Your task to perform on an android device: Search for razer blackwidow on newegg.com, select the first entry, and add it to the cart. Image 0: 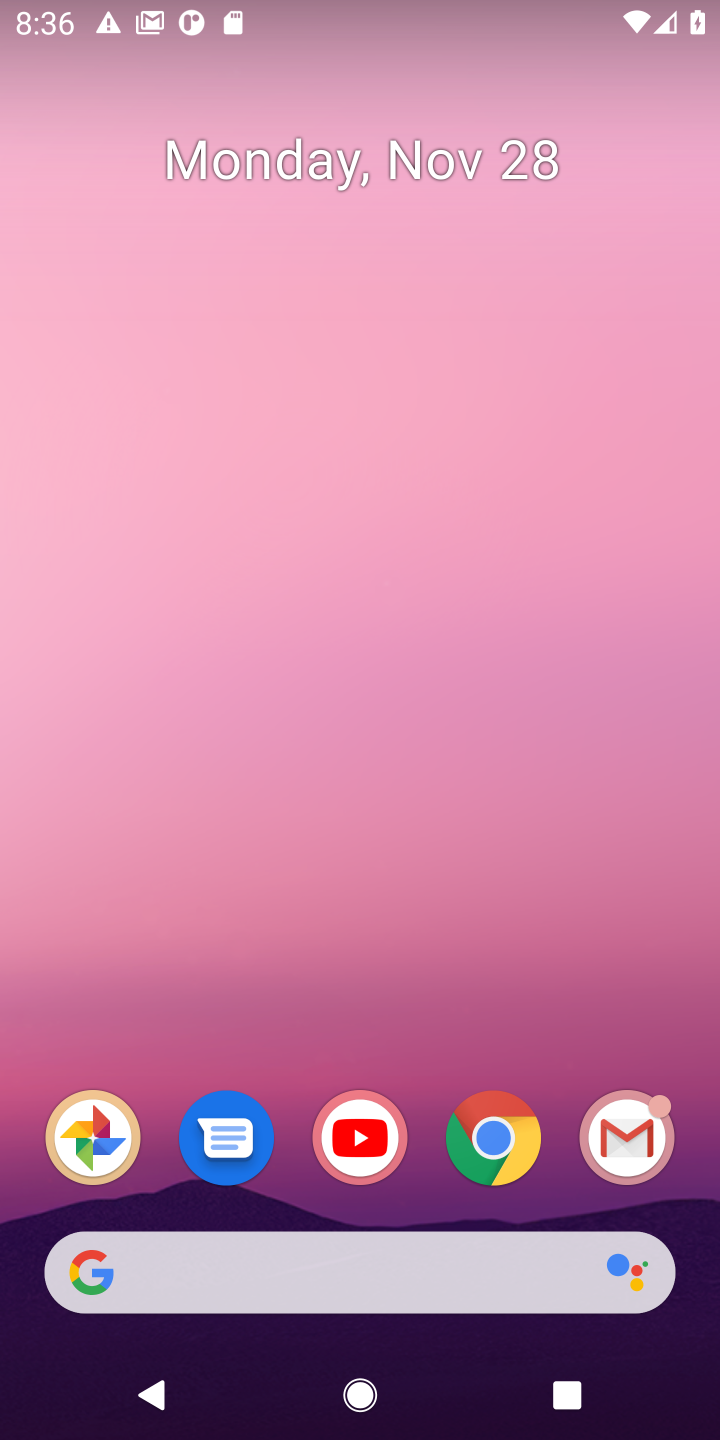
Step 0: click (492, 1158)
Your task to perform on an android device: Search for razer blackwidow on newegg.com, select the first entry, and add it to the cart. Image 1: 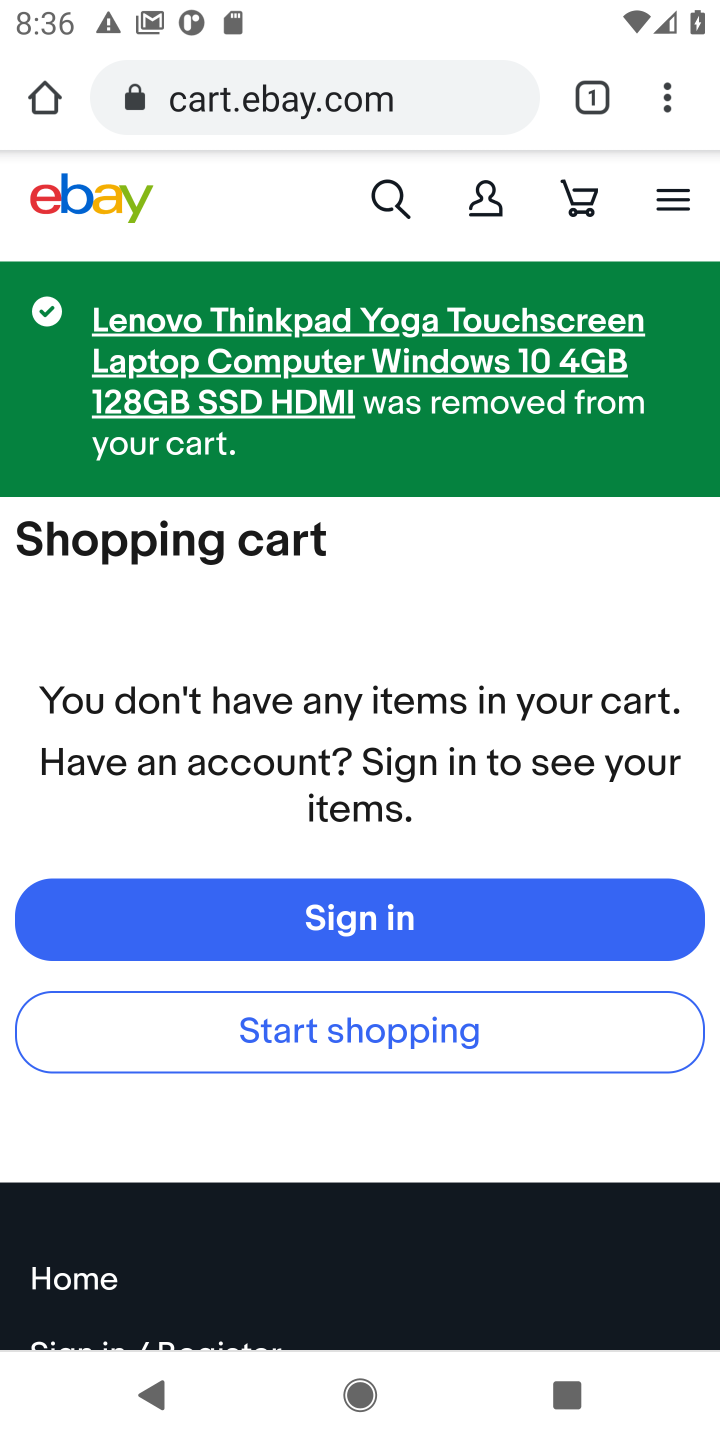
Step 1: click (258, 110)
Your task to perform on an android device: Search for razer blackwidow on newegg.com, select the first entry, and add it to the cart. Image 2: 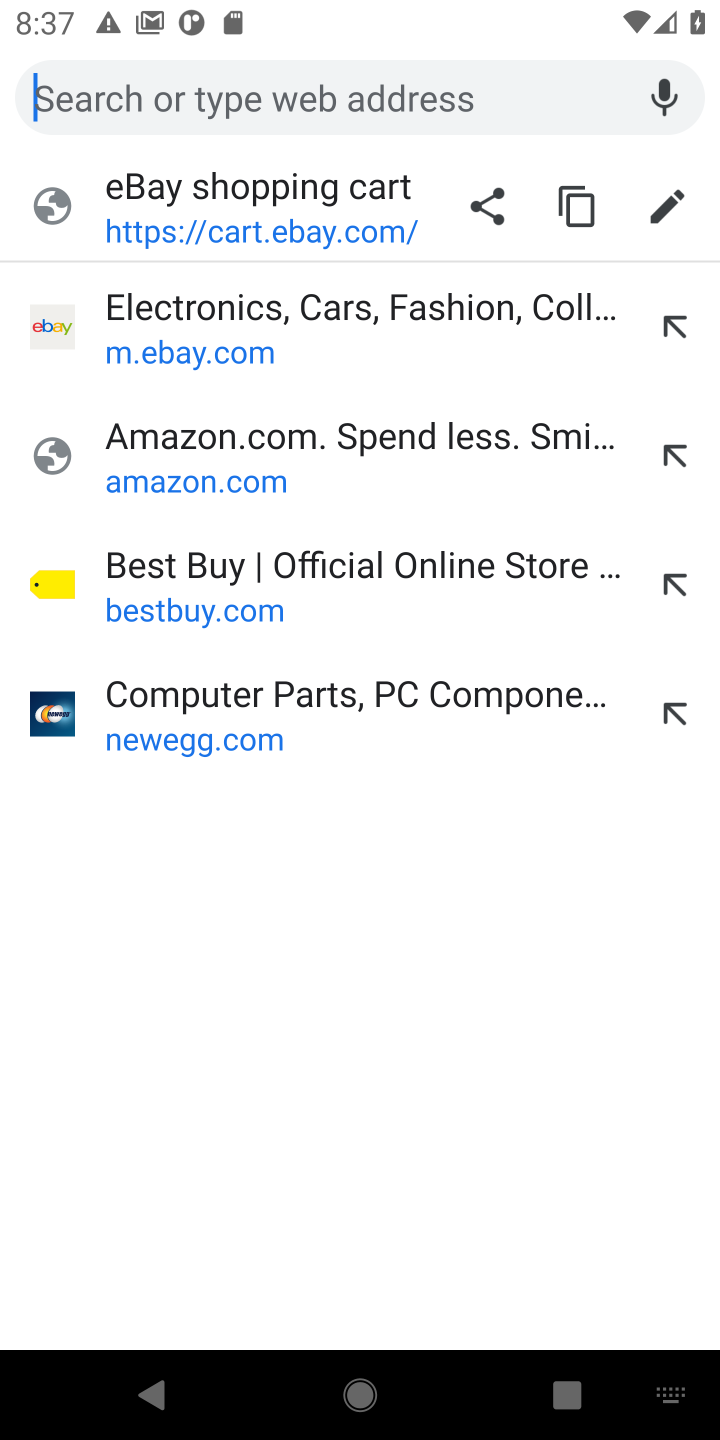
Step 2: click (131, 737)
Your task to perform on an android device: Search for razer blackwidow on newegg.com, select the first entry, and add it to the cart. Image 3: 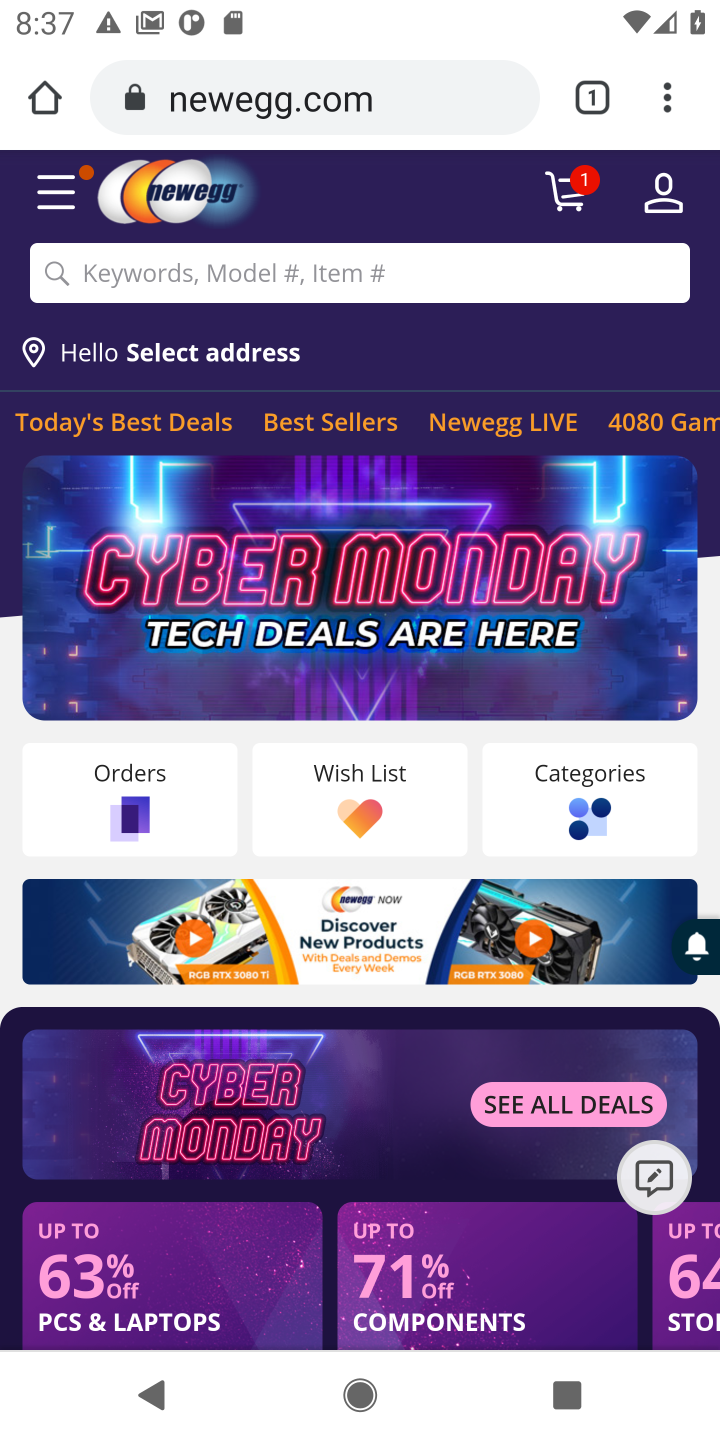
Step 3: click (266, 287)
Your task to perform on an android device: Search for razer blackwidow on newegg.com, select the first entry, and add it to the cart. Image 4: 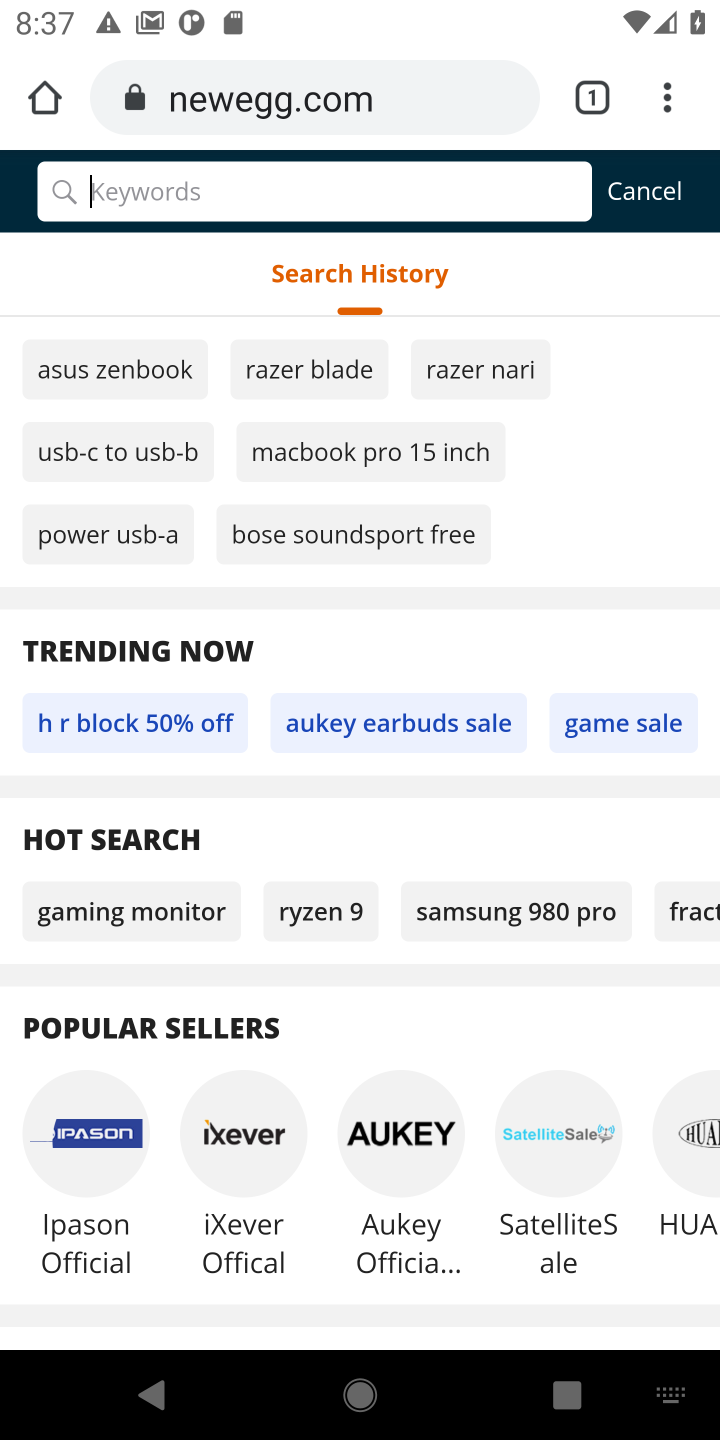
Step 4: type " razer blackwidow"
Your task to perform on an android device: Search for razer blackwidow on newegg.com, select the first entry, and add it to the cart. Image 5: 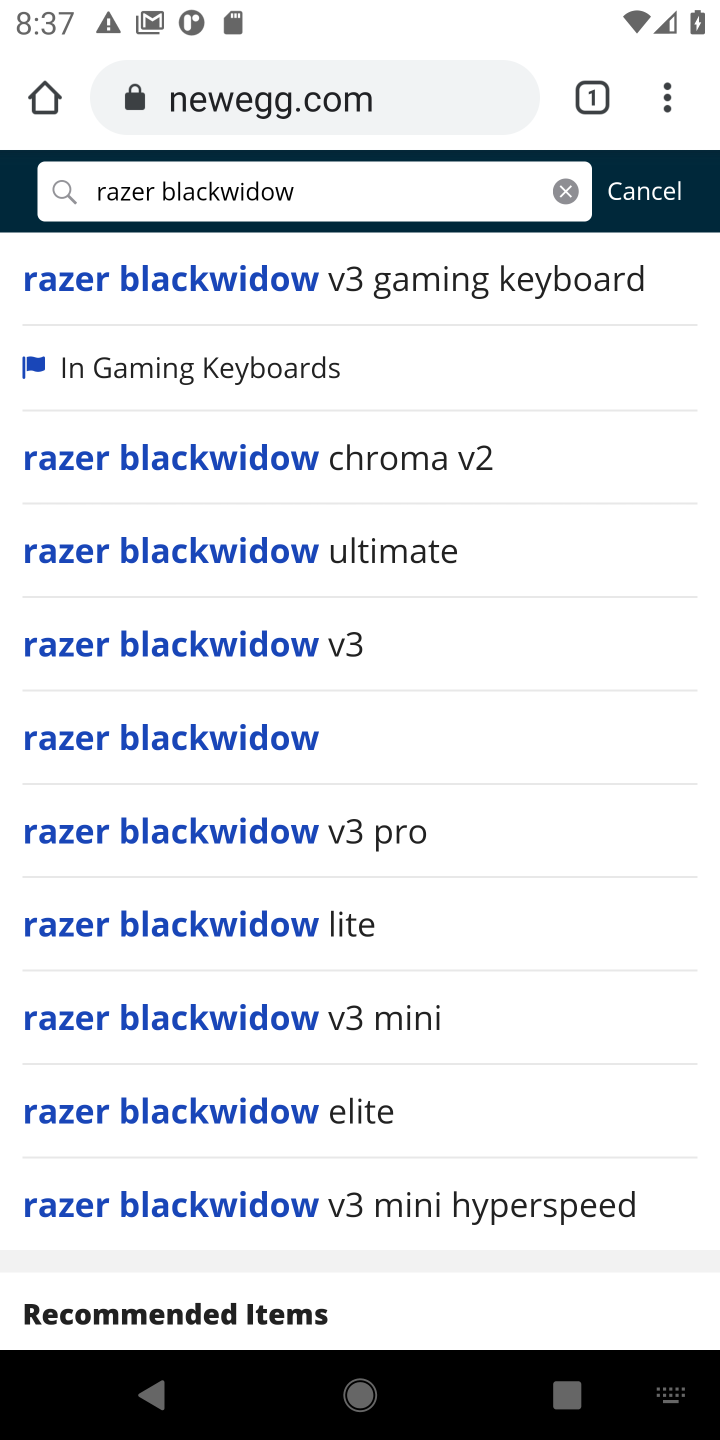
Step 5: click (179, 748)
Your task to perform on an android device: Search for razer blackwidow on newegg.com, select the first entry, and add it to the cart. Image 6: 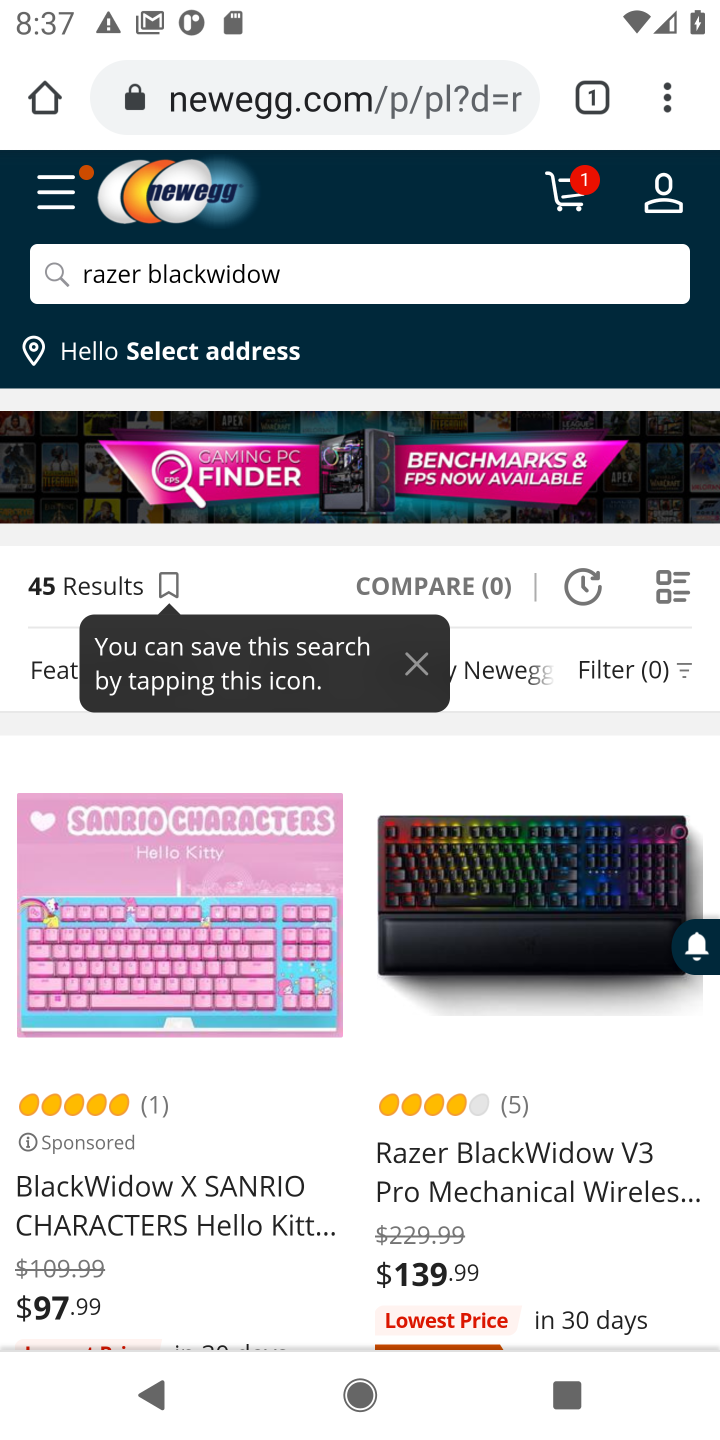
Step 6: task complete